Your task to perform on an android device: Add bose soundsport free to the cart on bestbuy, then select checkout. Image 0: 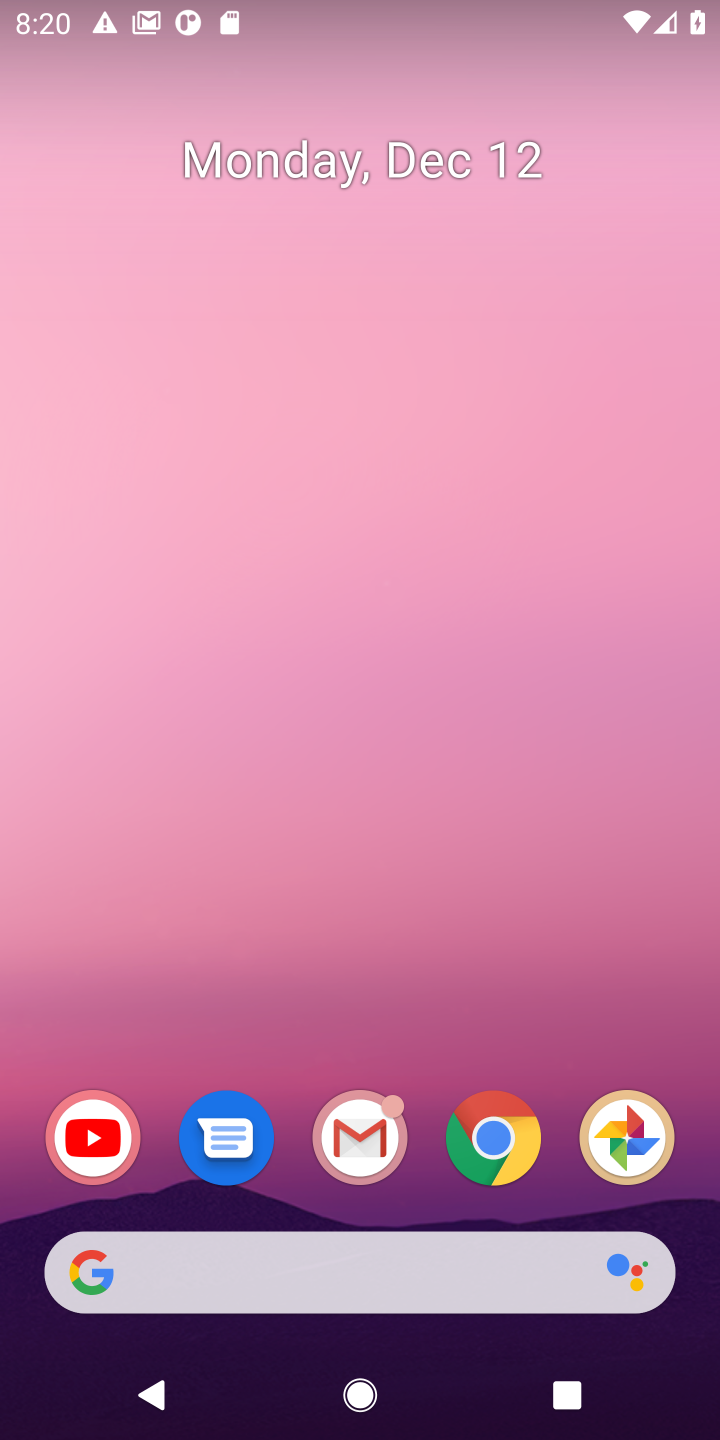
Step 0: drag from (396, 1076) to (466, 251)
Your task to perform on an android device: Add bose soundsport free to the cart on bestbuy, then select checkout. Image 1: 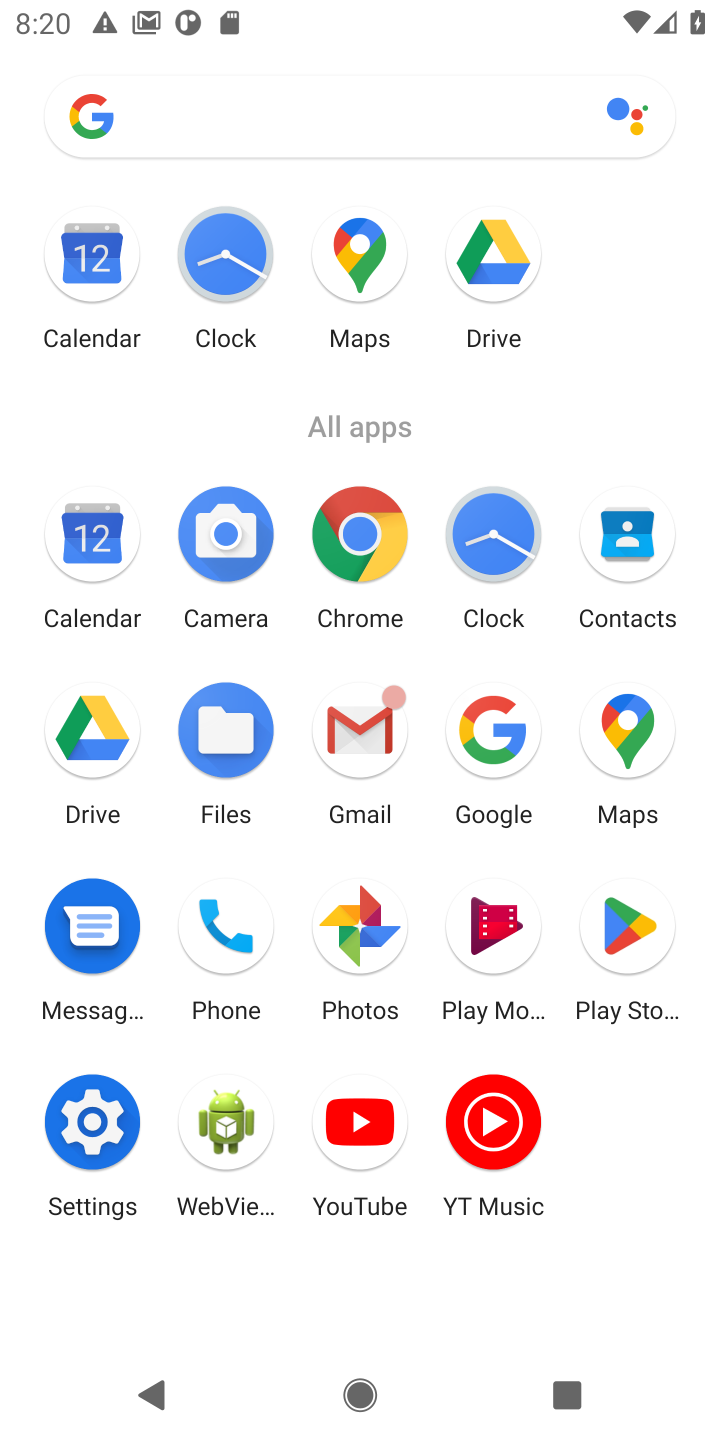
Step 1: click (484, 753)
Your task to perform on an android device: Add bose soundsport free to the cart on bestbuy, then select checkout. Image 2: 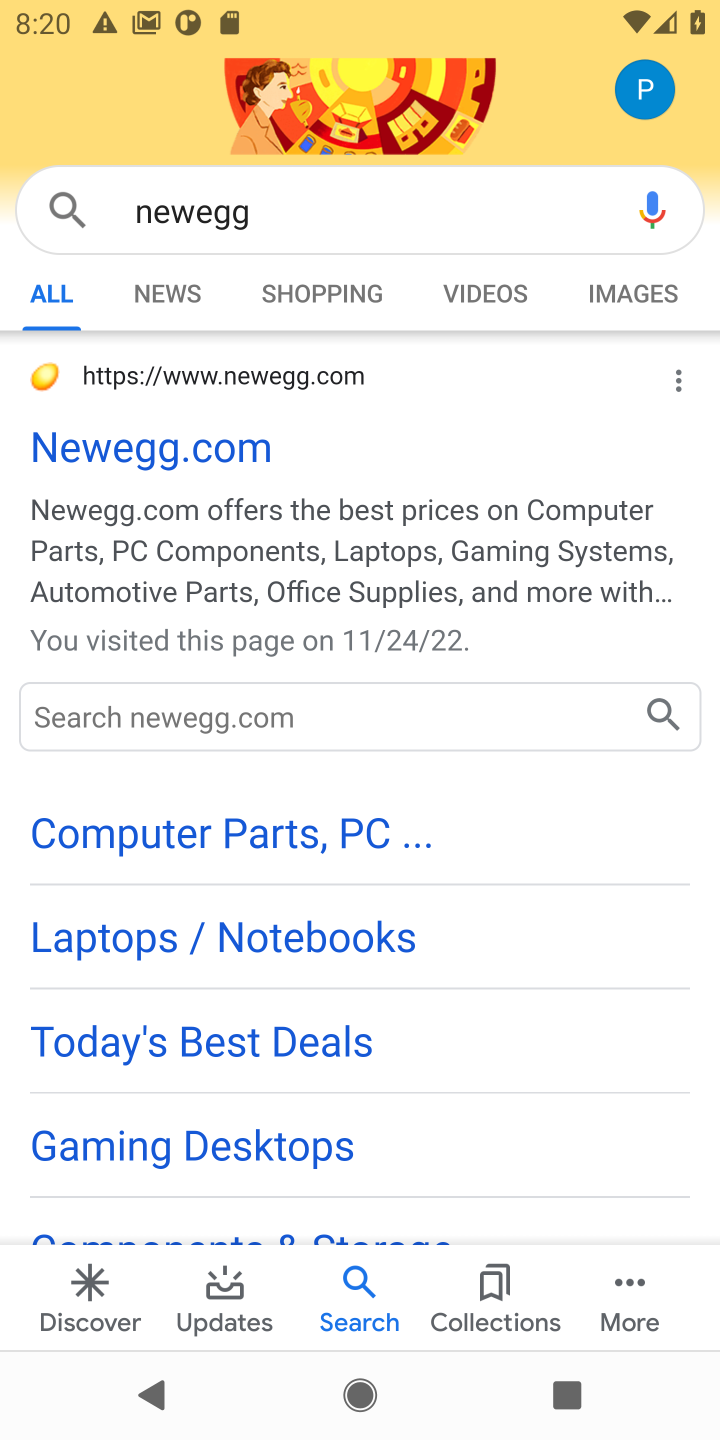
Step 2: click (179, 223)
Your task to perform on an android device: Add bose soundsport free to the cart on bestbuy, then select checkout. Image 3: 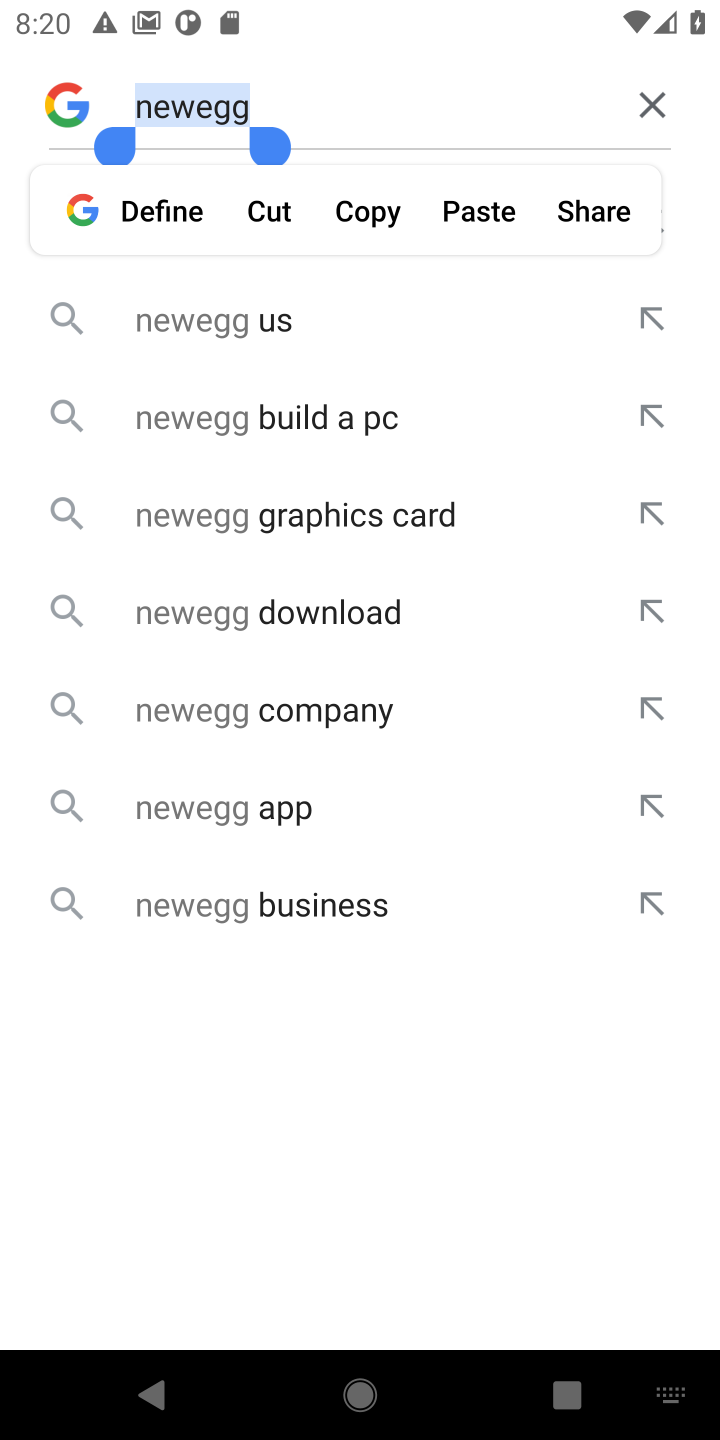
Step 3: click (652, 113)
Your task to perform on an android device: Add bose soundsport free to the cart on bestbuy, then select checkout. Image 4: 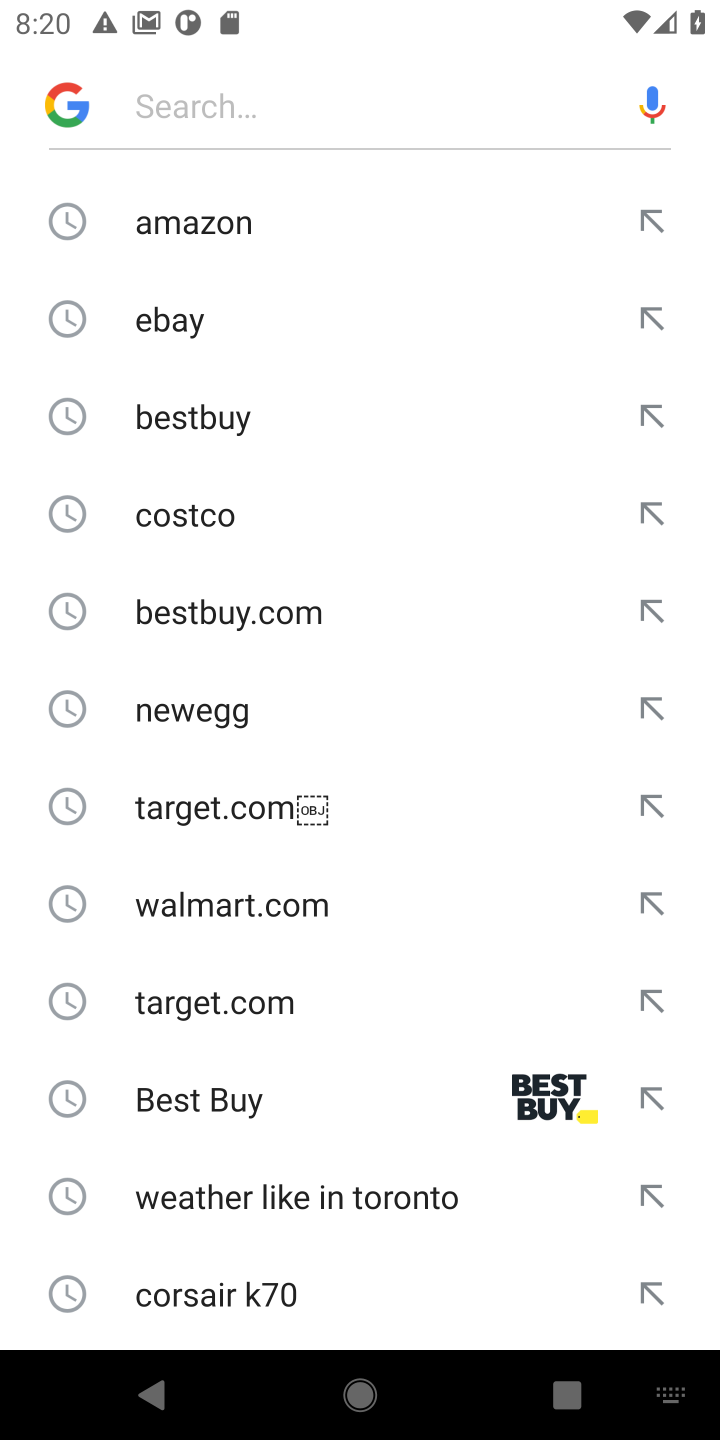
Step 4: click (199, 407)
Your task to perform on an android device: Add bose soundsport free to the cart on bestbuy, then select checkout. Image 5: 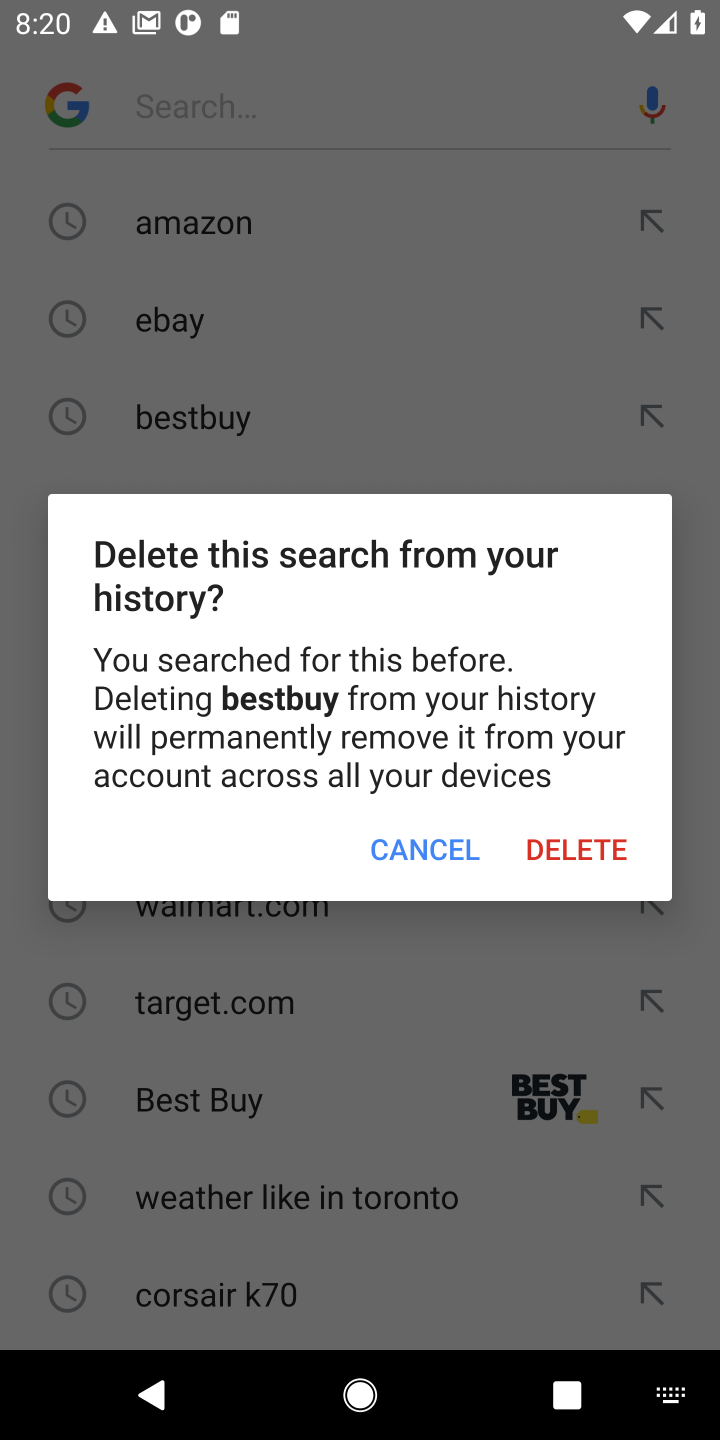
Step 5: click (383, 850)
Your task to perform on an android device: Add bose soundsport free to the cart on bestbuy, then select checkout. Image 6: 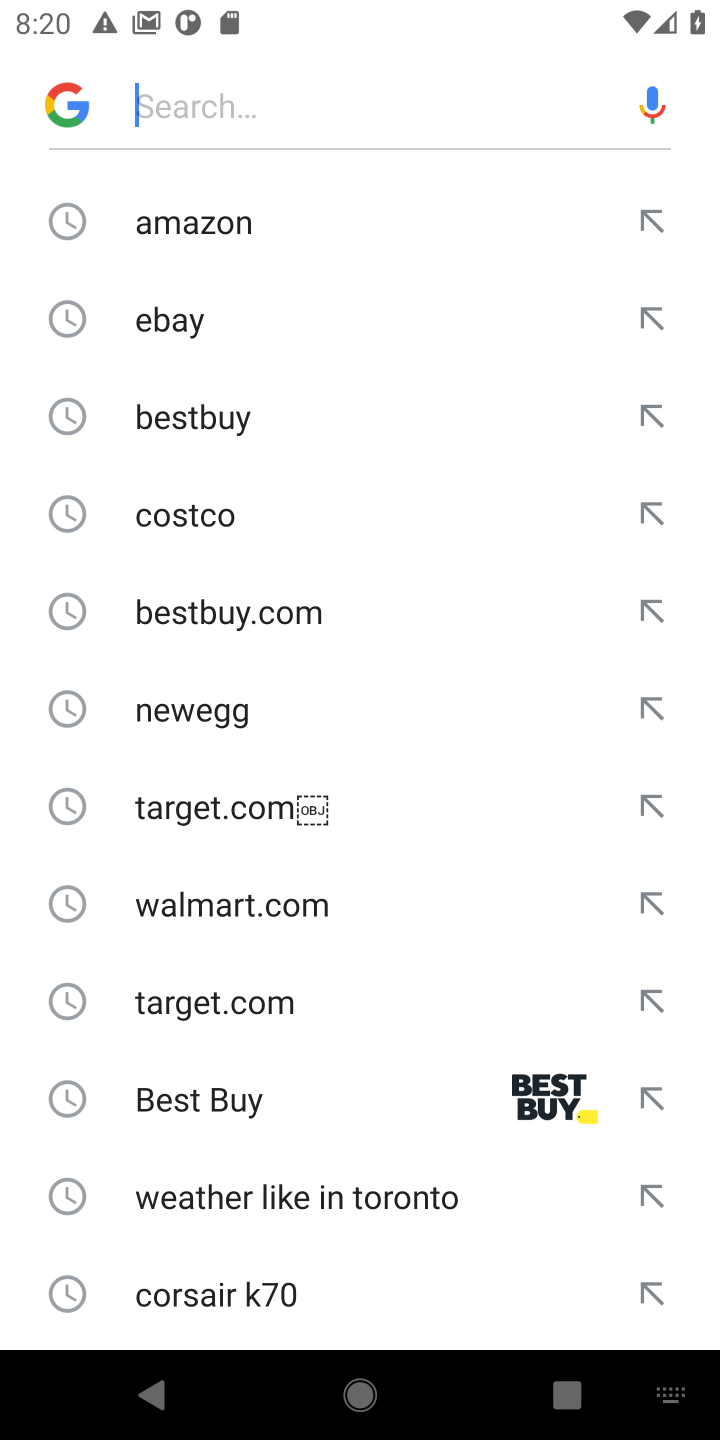
Step 6: click (181, 412)
Your task to perform on an android device: Add bose soundsport free to the cart on bestbuy, then select checkout. Image 7: 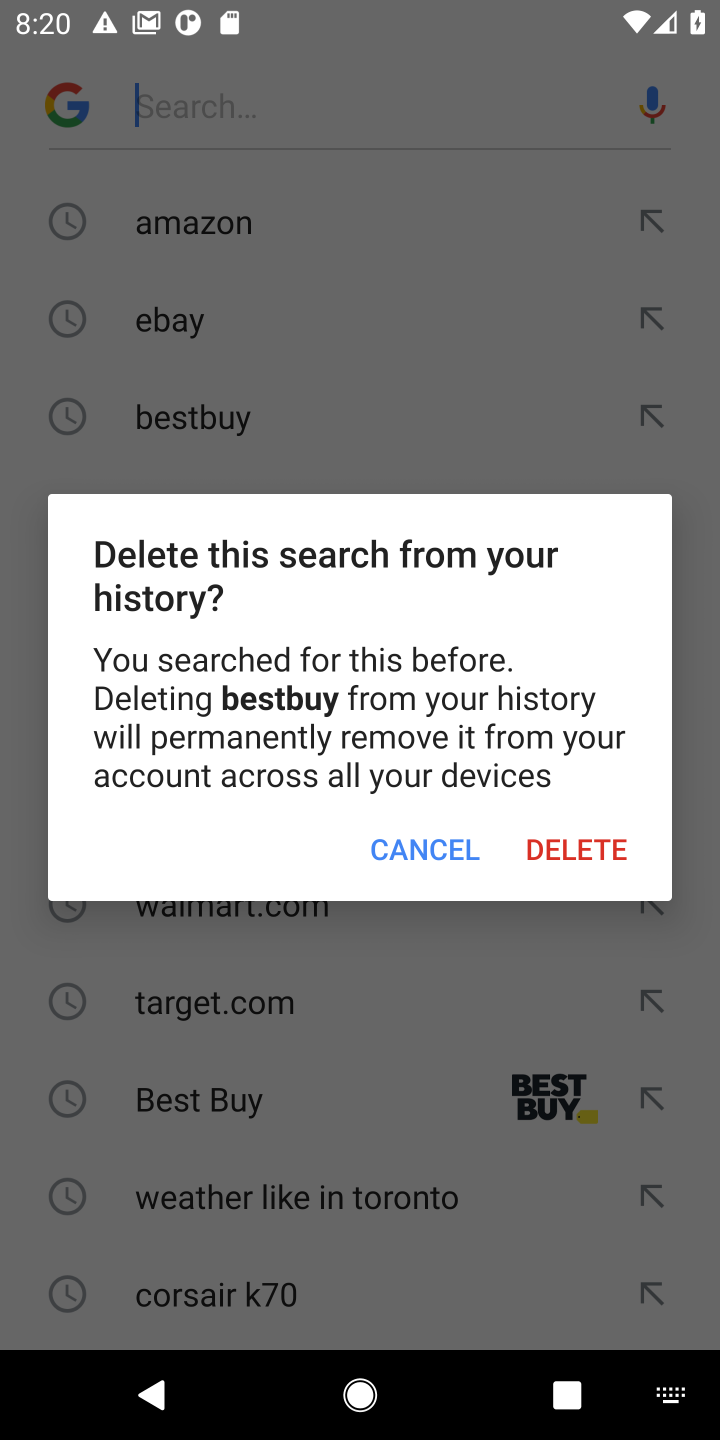
Step 7: click (407, 861)
Your task to perform on an android device: Add bose soundsport free to the cart on bestbuy, then select checkout. Image 8: 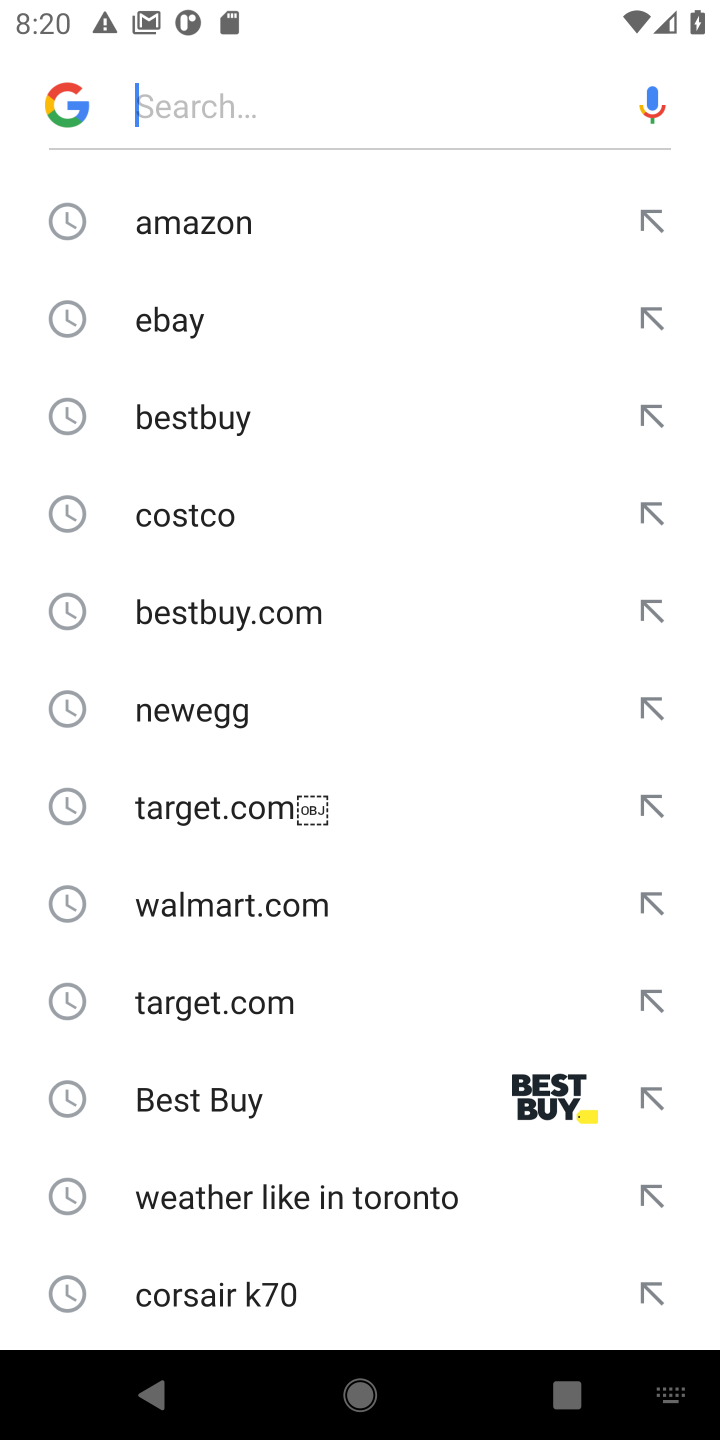
Step 8: click (219, 406)
Your task to perform on an android device: Add bose soundsport free to the cart on bestbuy, then select checkout. Image 9: 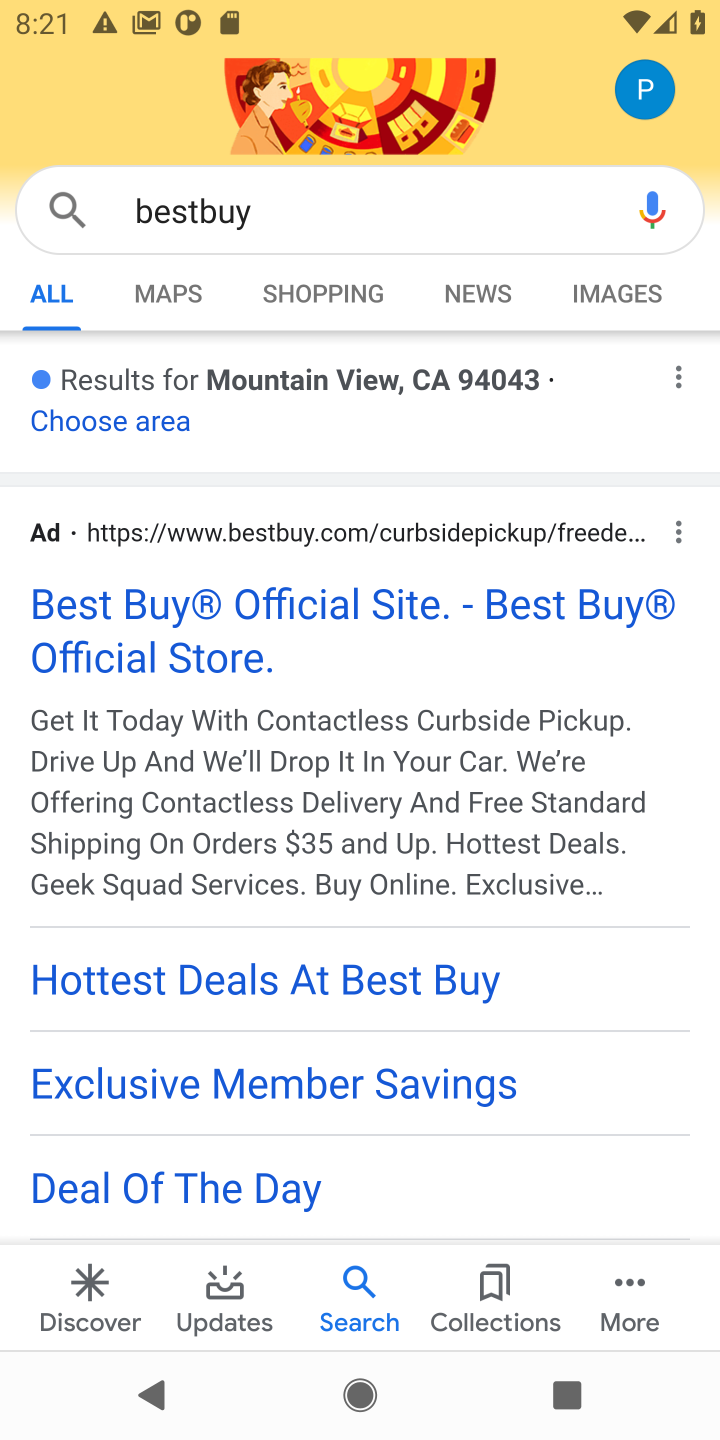
Step 9: click (181, 638)
Your task to perform on an android device: Add bose soundsport free to the cart on bestbuy, then select checkout. Image 10: 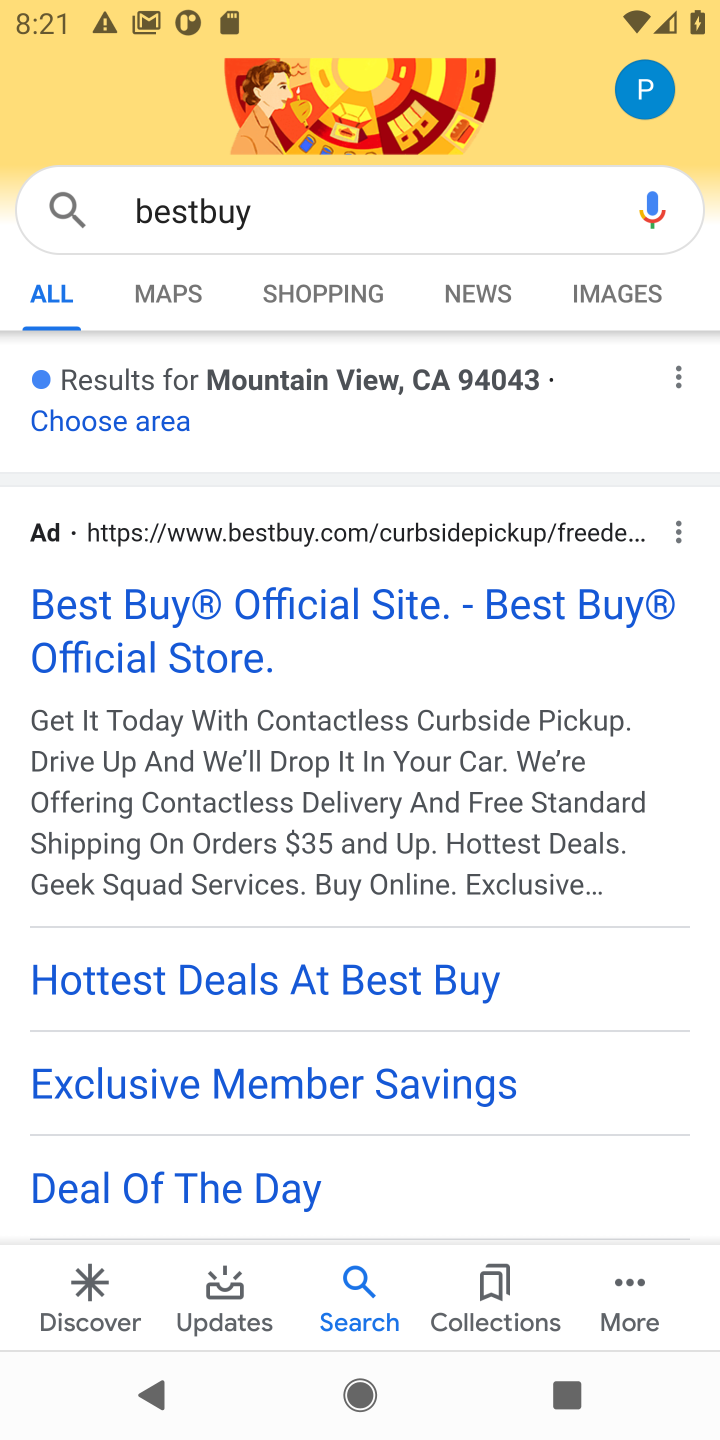
Step 10: click (204, 627)
Your task to perform on an android device: Add bose soundsport free to the cart on bestbuy, then select checkout. Image 11: 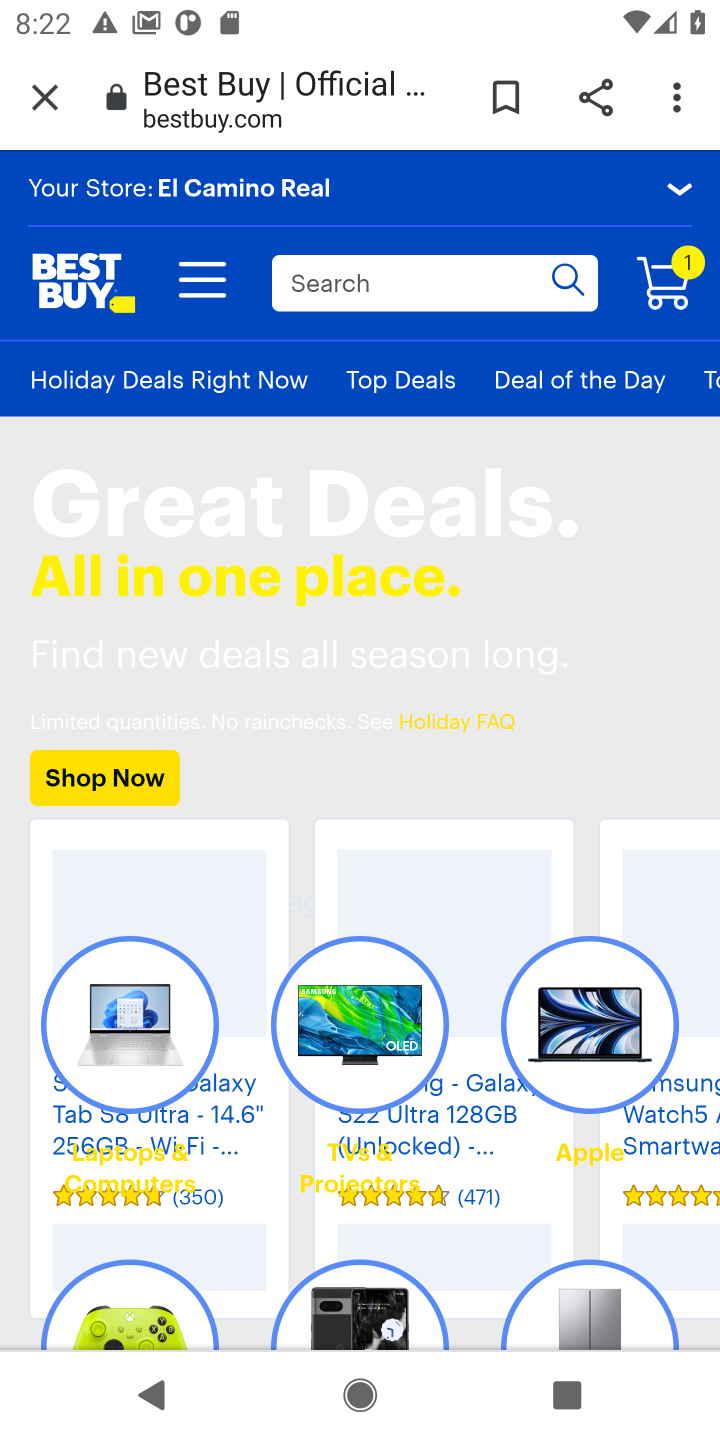
Step 11: click (353, 275)
Your task to perform on an android device: Add bose soundsport free to the cart on bestbuy, then select checkout. Image 12: 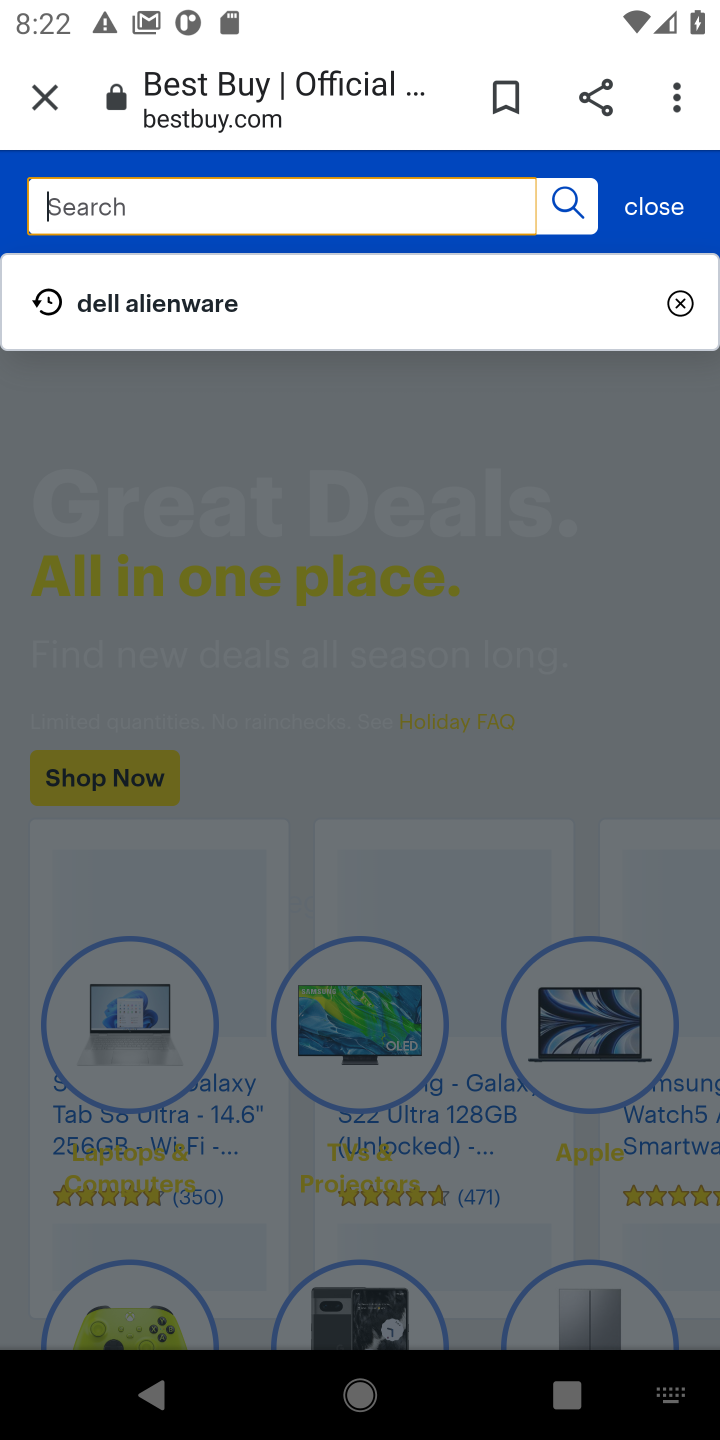
Step 12: type "soundsport "
Your task to perform on an android device: Add bose soundsport free to the cart on bestbuy, then select checkout. Image 13: 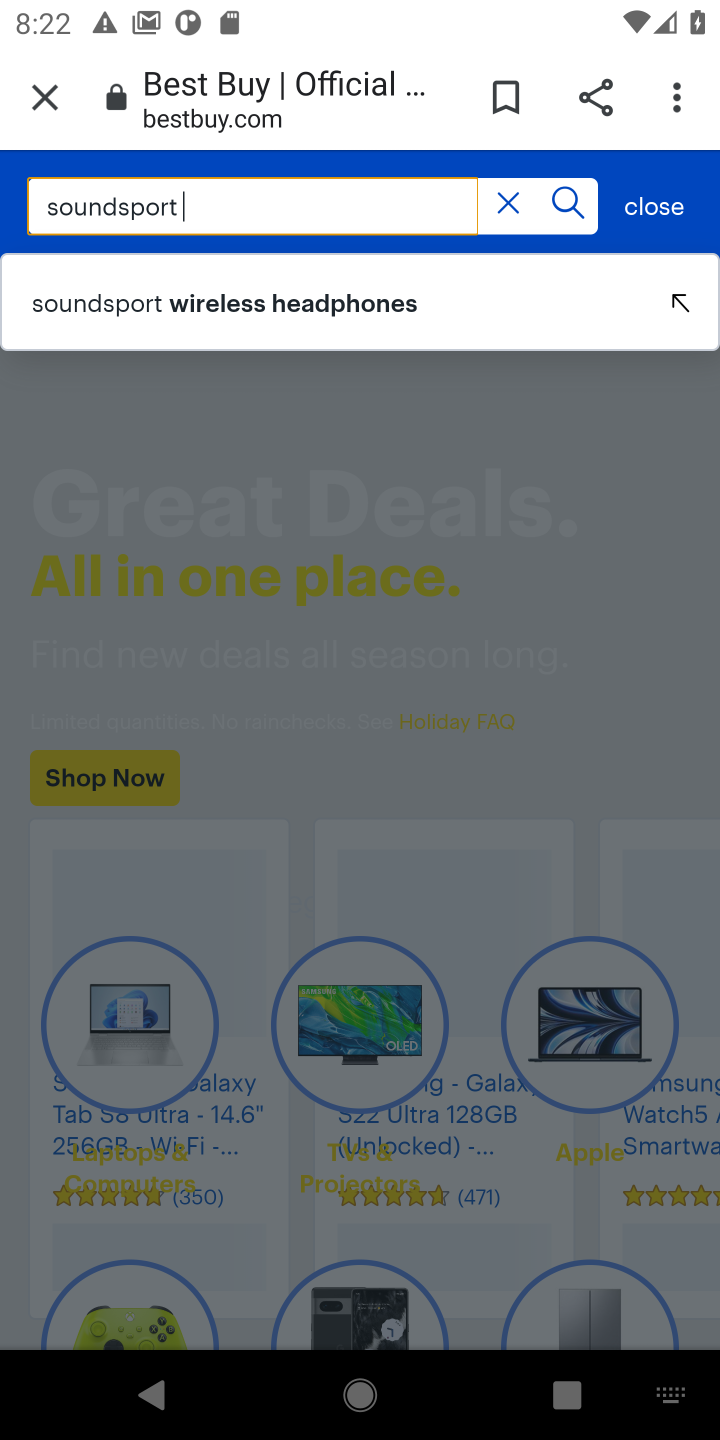
Step 13: click (568, 201)
Your task to perform on an android device: Add bose soundsport free to the cart on bestbuy, then select checkout. Image 14: 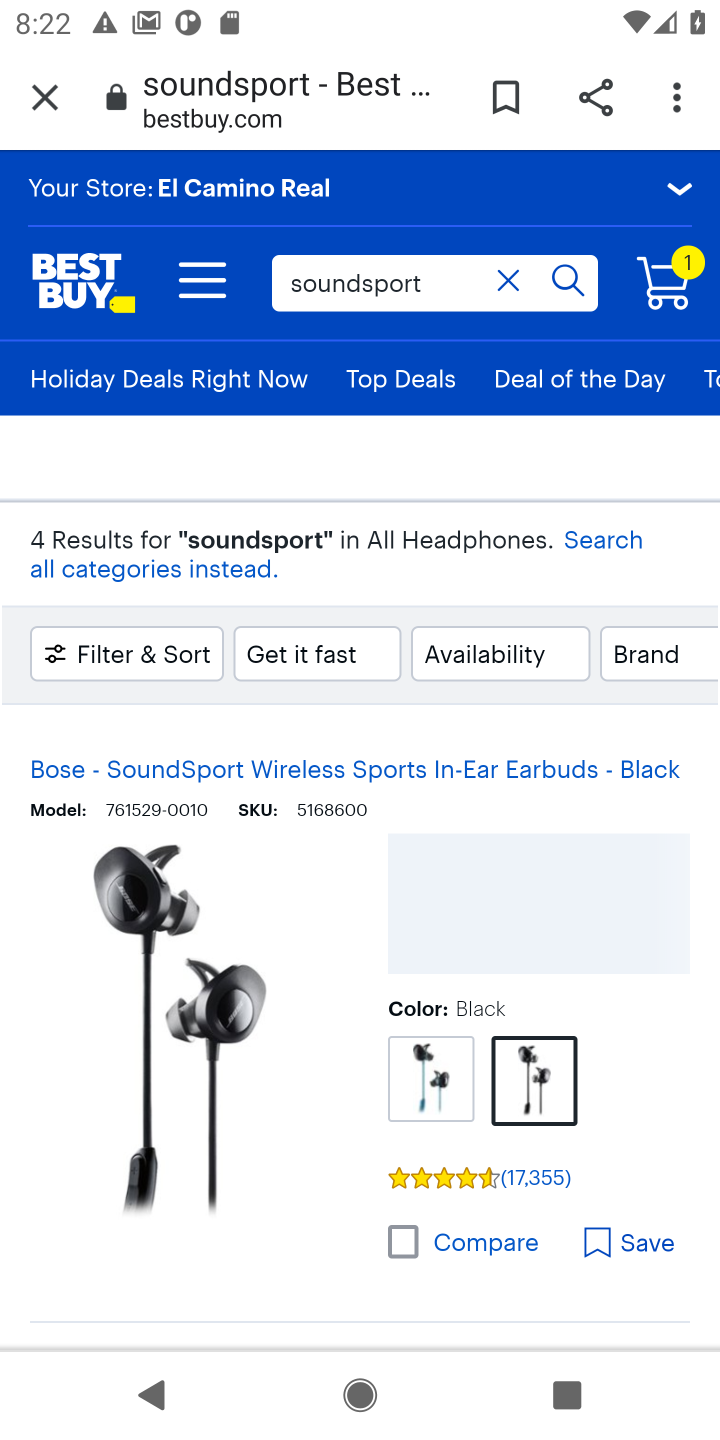
Step 14: drag from (263, 1176) to (276, 628)
Your task to perform on an android device: Add bose soundsport free to the cart on bestbuy, then select checkout. Image 15: 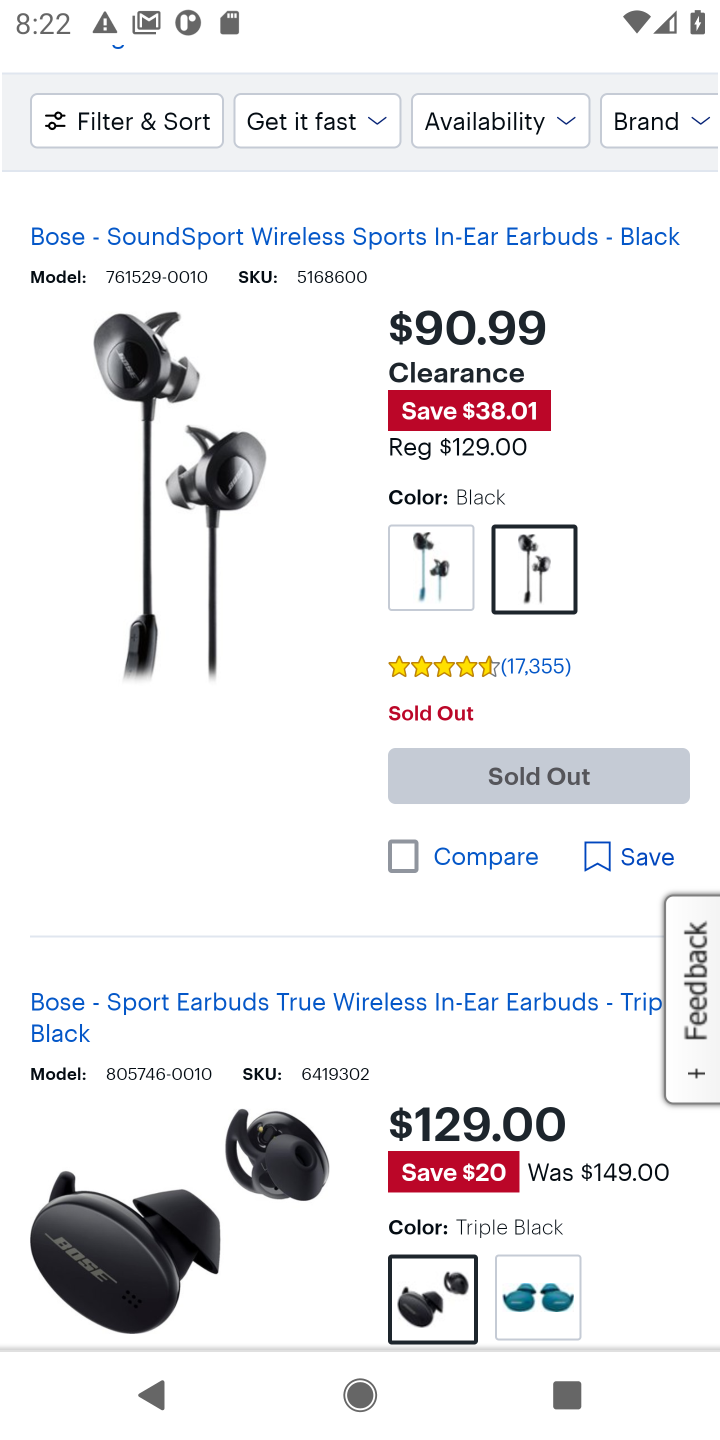
Step 15: drag from (157, 858) to (184, 427)
Your task to perform on an android device: Add bose soundsport free to the cart on bestbuy, then select checkout. Image 16: 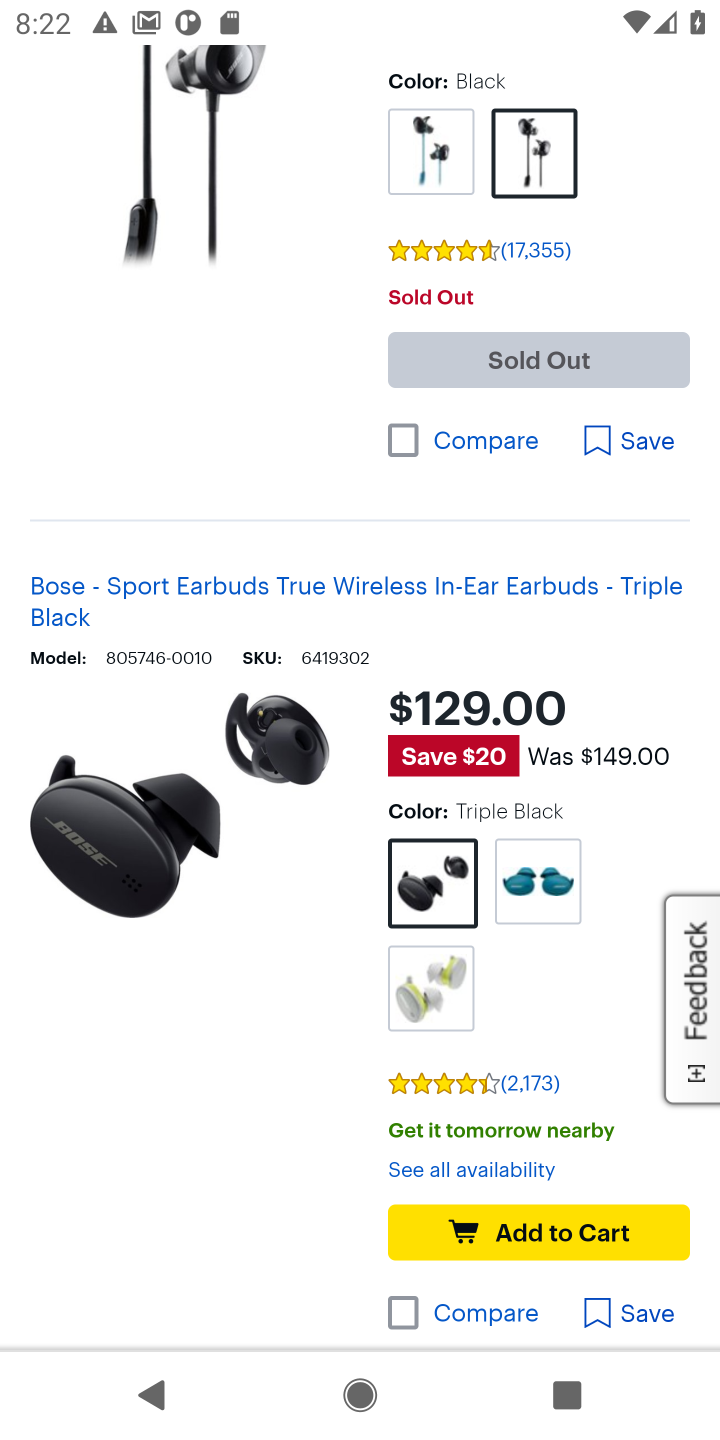
Step 16: click (461, 1228)
Your task to perform on an android device: Add bose soundsport free to the cart on bestbuy, then select checkout. Image 17: 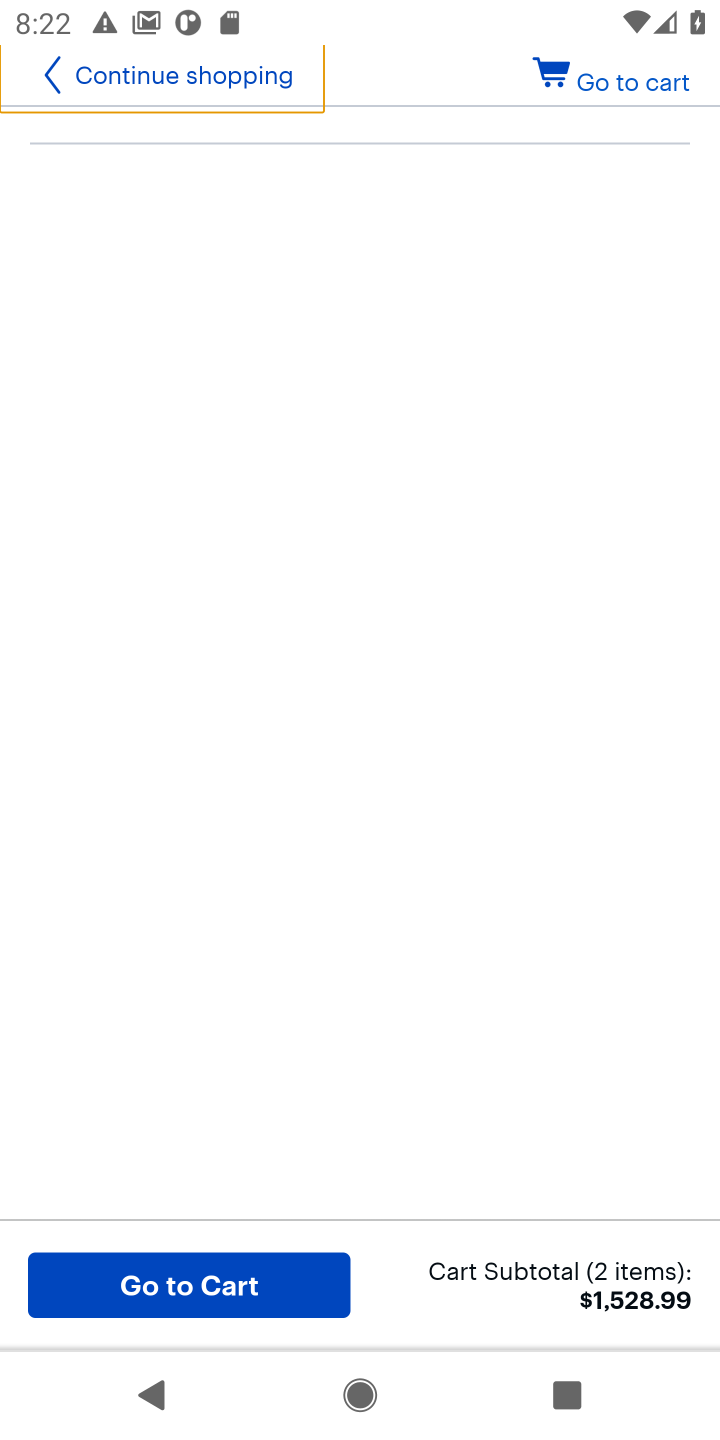
Step 17: drag from (182, 1216) to (208, 568)
Your task to perform on an android device: Add bose soundsport free to the cart on bestbuy, then select checkout. Image 18: 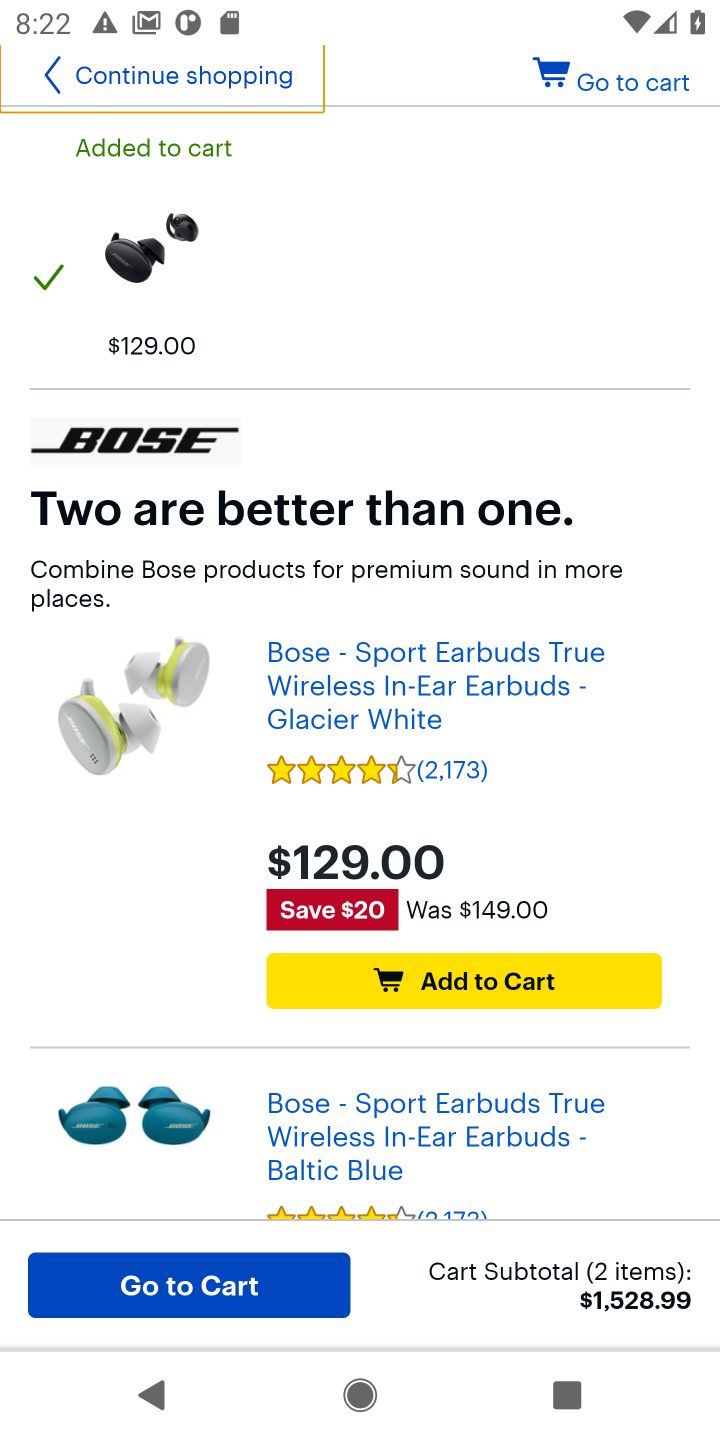
Step 18: drag from (410, 1052) to (419, 393)
Your task to perform on an android device: Add bose soundsport free to the cart on bestbuy, then select checkout. Image 19: 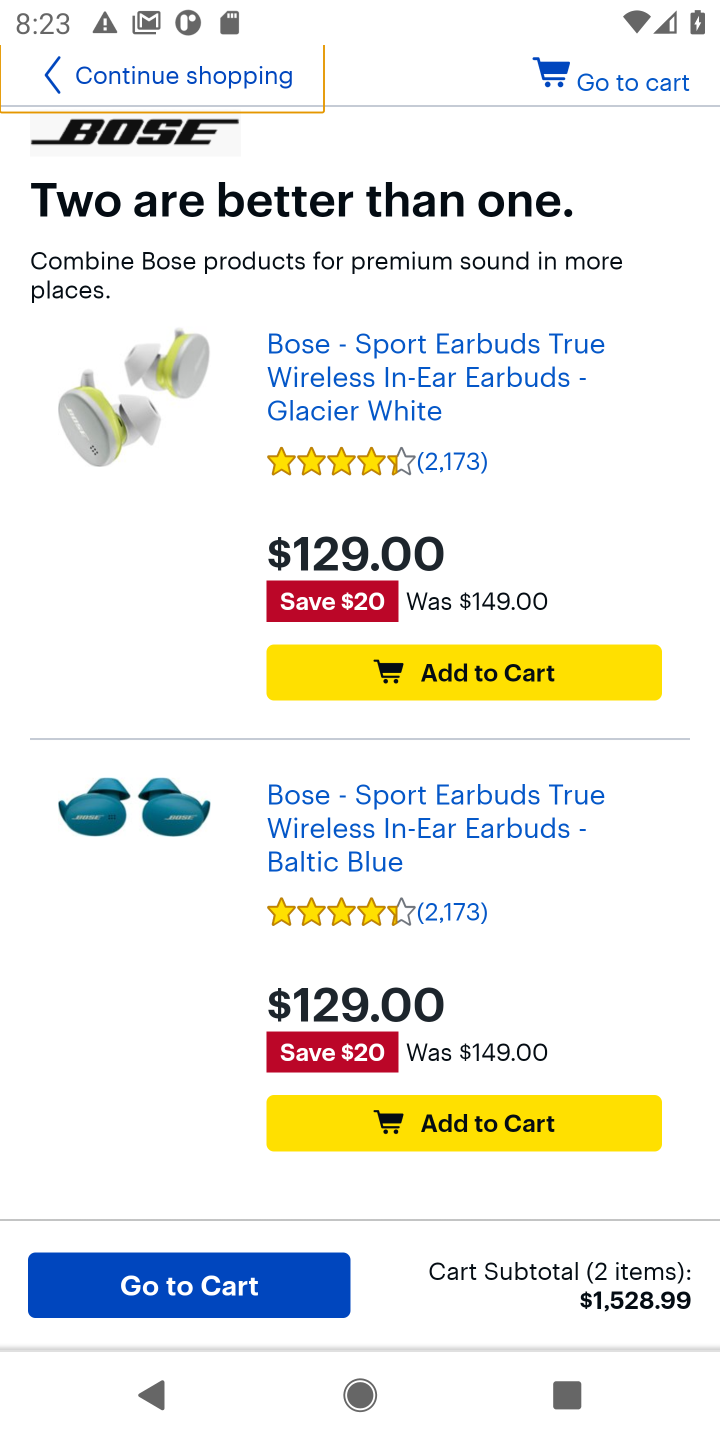
Step 19: click (434, 674)
Your task to perform on an android device: Add bose soundsport free to the cart on bestbuy, then select checkout. Image 20: 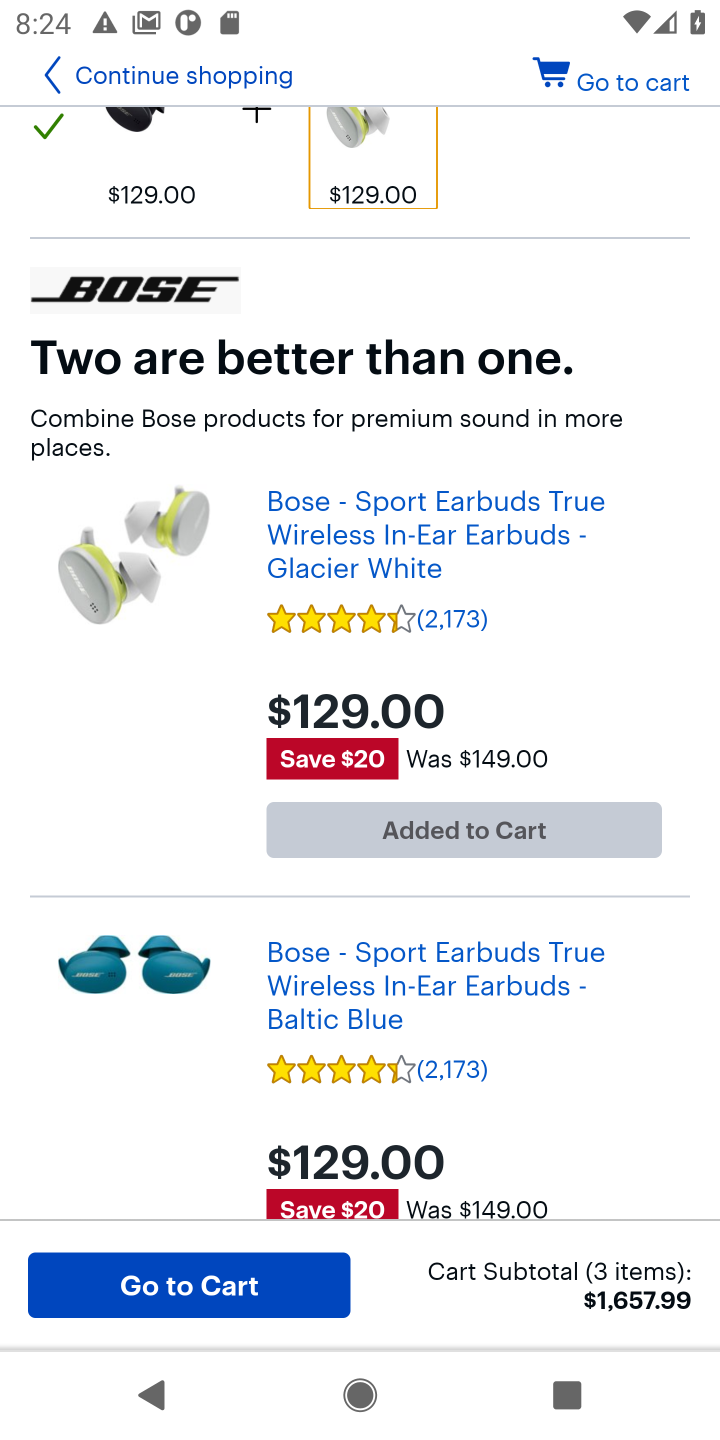
Step 20: click (143, 1299)
Your task to perform on an android device: Add bose soundsport free to the cart on bestbuy, then select checkout. Image 21: 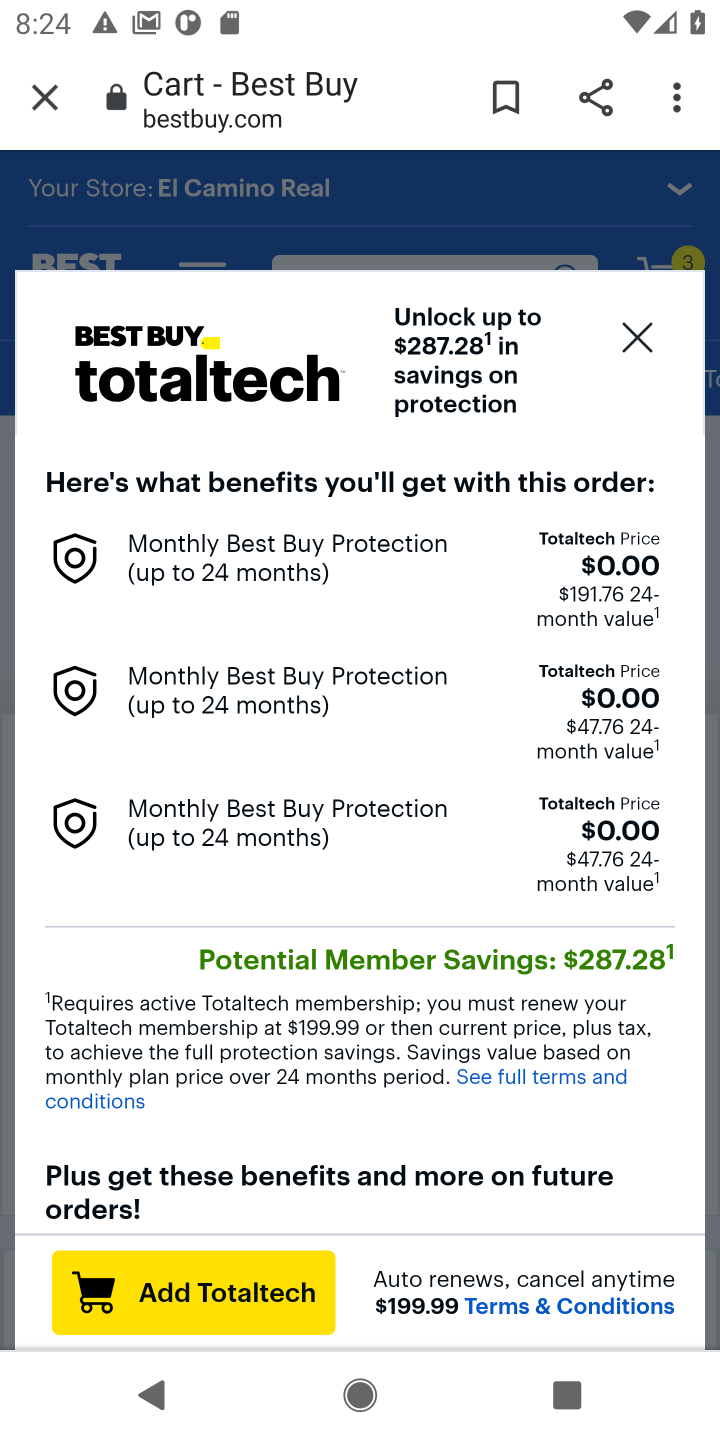
Step 21: click (629, 345)
Your task to perform on an android device: Add bose soundsport free to the cart on bestbuy, then select checkout. Image 22: 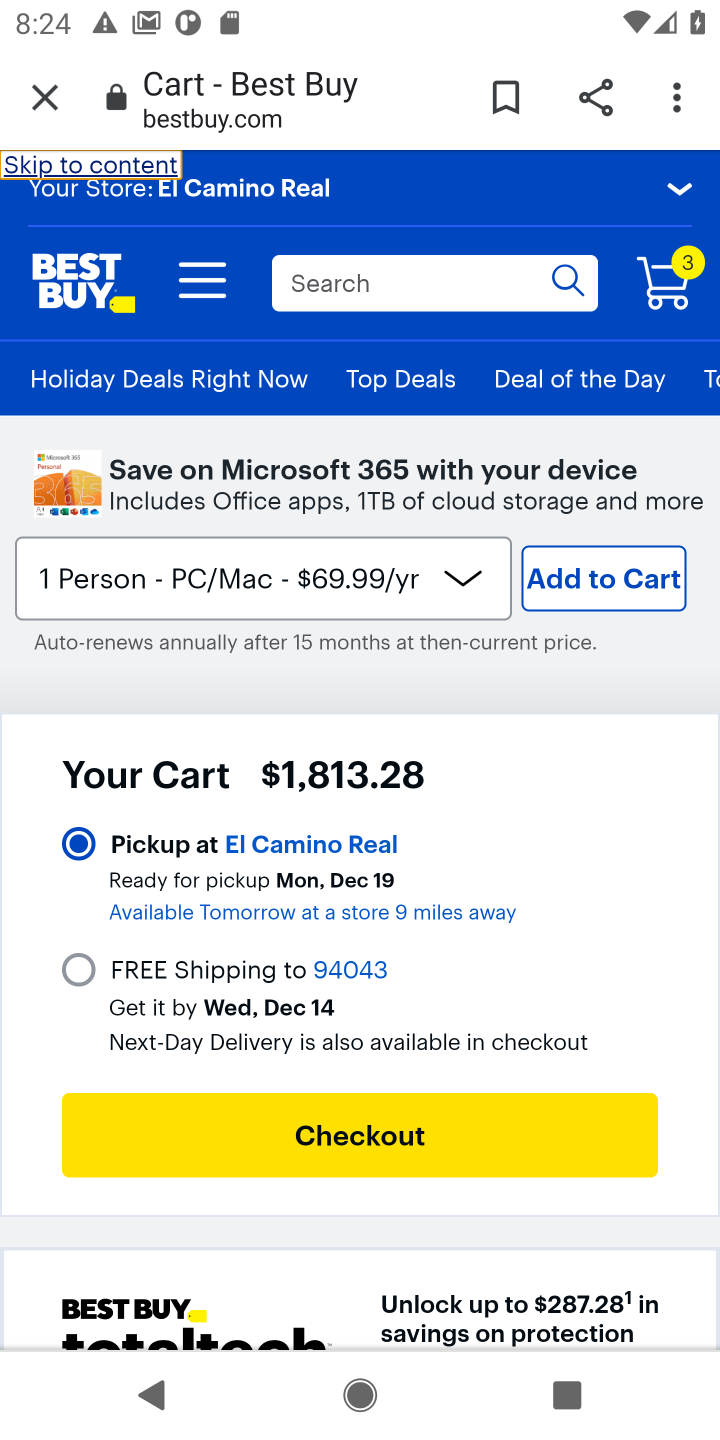
Step 22: drag from (635, 845) to (581, 437)
Your task to perform on an android device: Add bose soundsport free to the cart on bestbuy, then select checkout. Image 23: 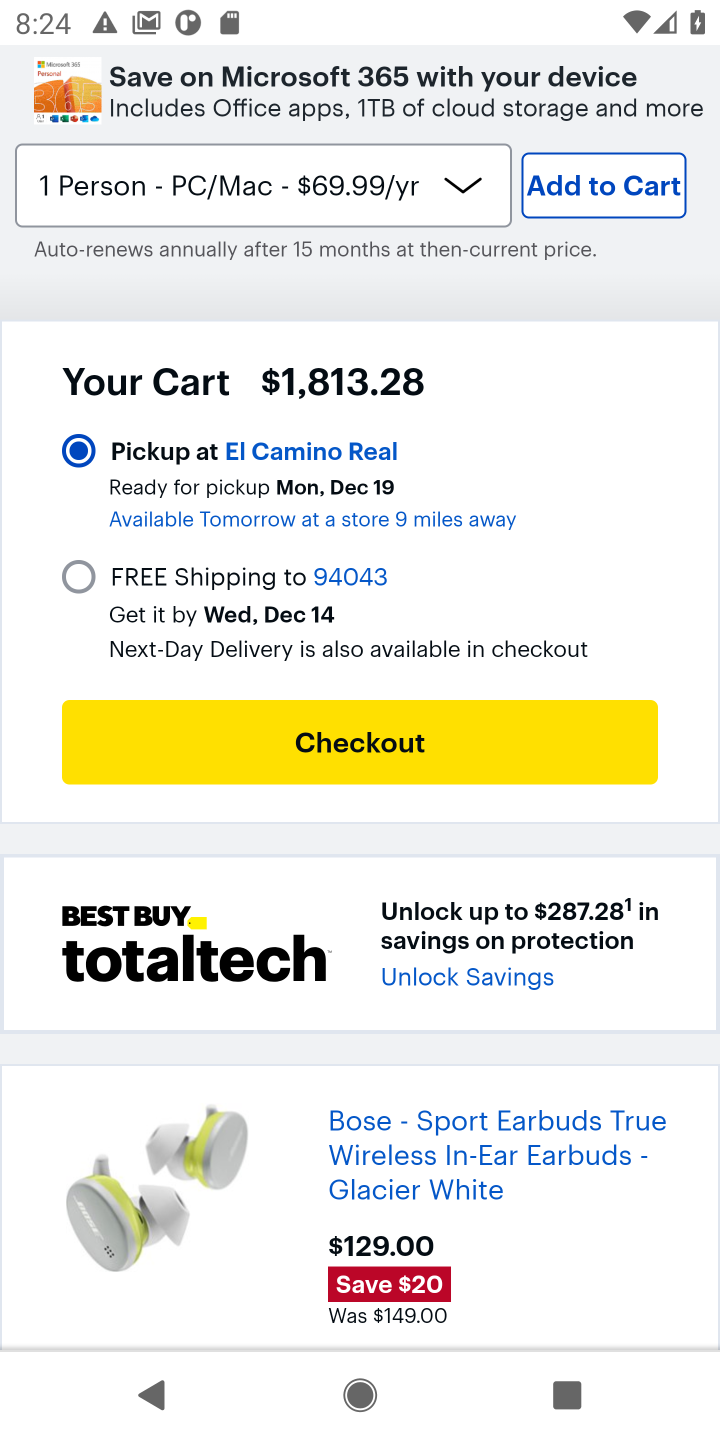
Step 23: click (395, 748)
Your task to perform on an android device: Add bose soundsport free to the cart on bestbuy, then select checkout. Image 24: 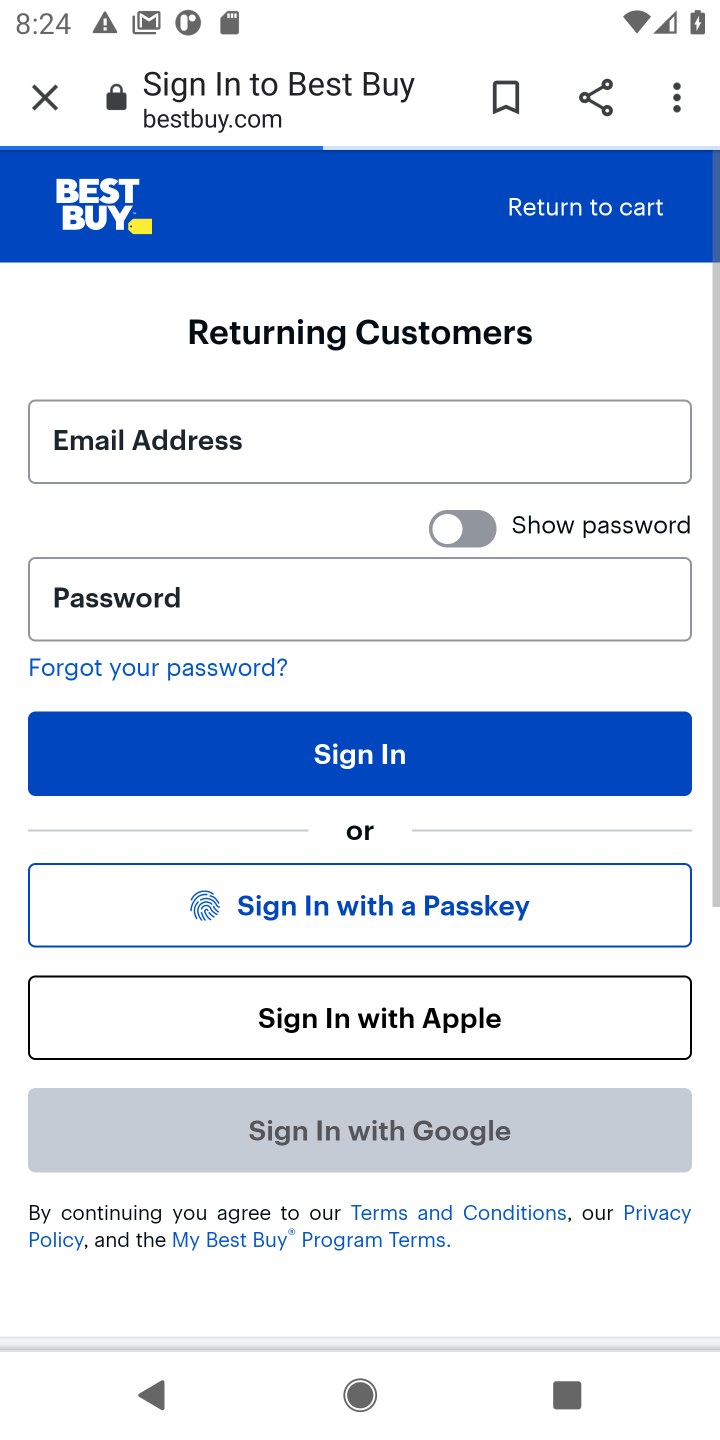
Step 24: task complete